Your task to perform on an android device: Open notification settings Image 0: 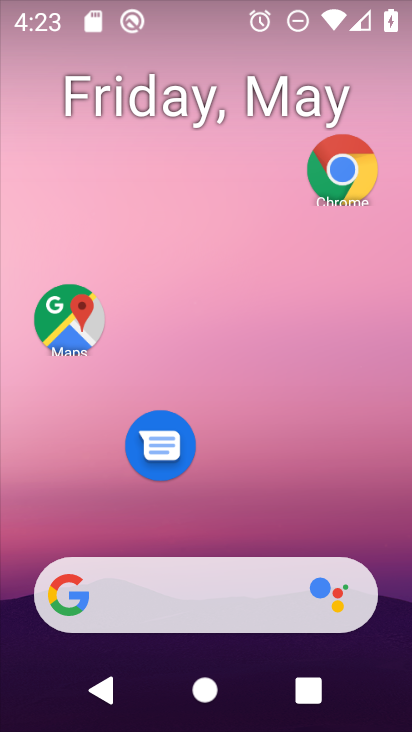
Step 0: drag from (223, 527) to (170, 9)
Your task to perform on an android device: Open notification settings Image 1: 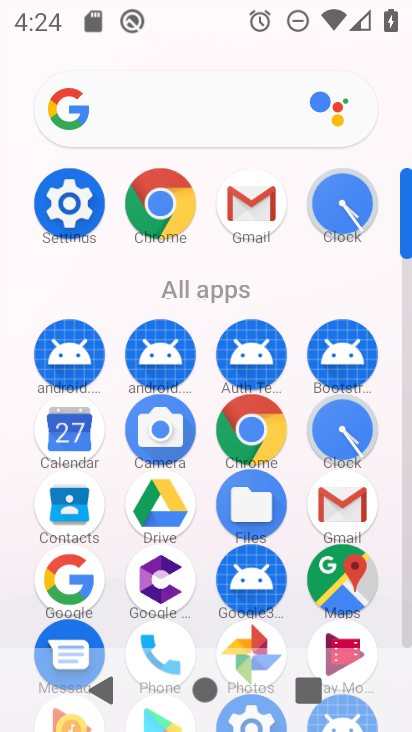
Step 1: click (67, 206)
Your task to perform on an android device: Open notification settings Image 2: 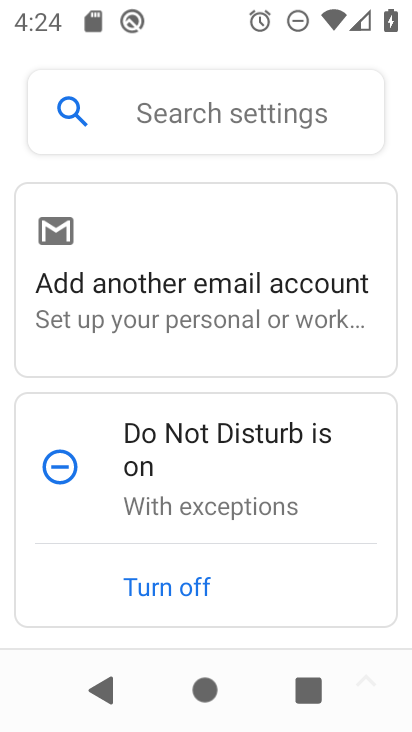
Step 2: drag from (273, 497) to (290, 125)
Your task to perform on an android device: Open notification settings Image 3: 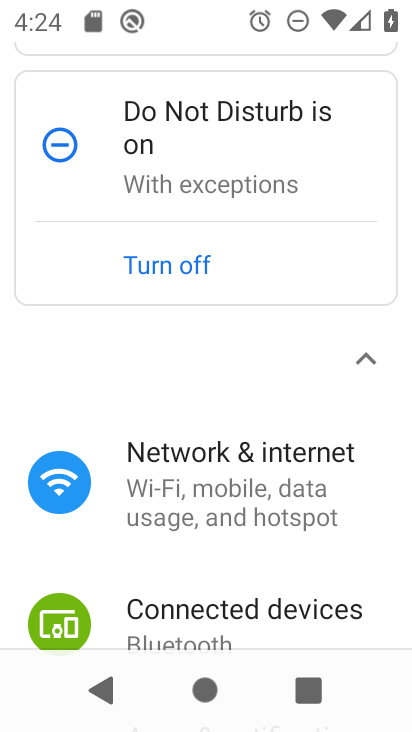
Step 3: drag from (284, 513) to (284, 148)
Your task to perform on an android device: Open notification settings Image 4: 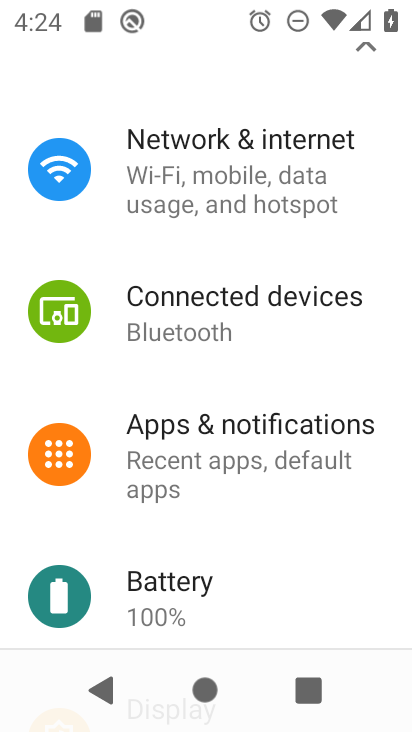
Step 4: click (239, 458)
Your task to perform on an android device: Open notification settings Image 5: 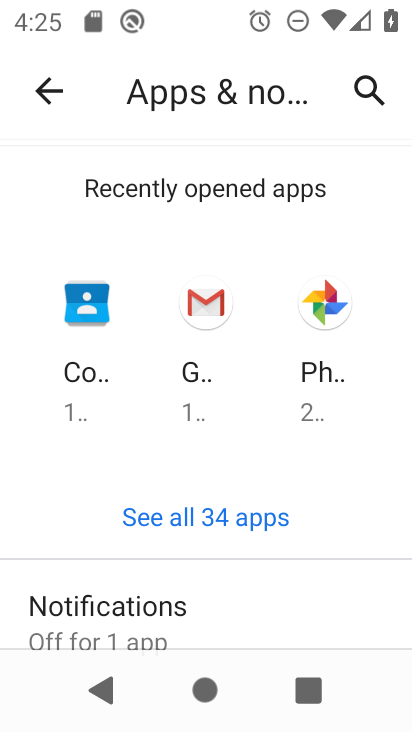
Step 5: drag from (259, 566) to (283, 294)
Your task to perform on an android device: Open notification settings Image 6: 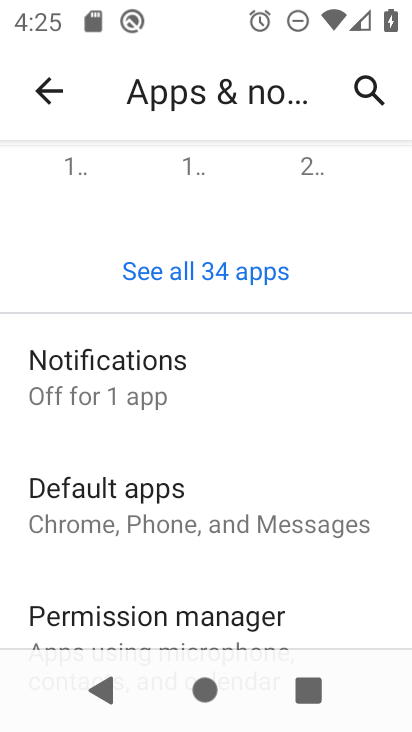
Step 6: click (125, 393)
Your task to perform on an android device: Open notification settings Image 7: 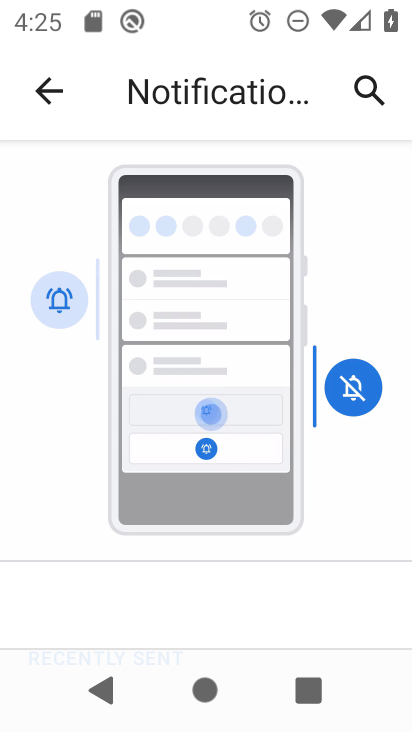
Step 7: task complete